Your task to perform on an android device: Go to internet settings Image 0: 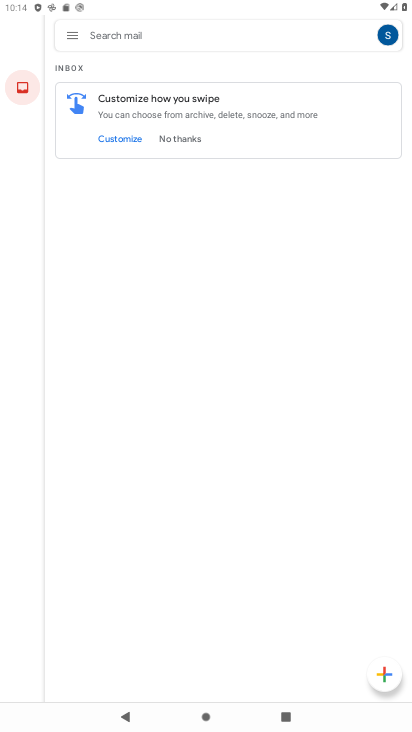
Step 0: press home button
Your task to perform on an android device: Go to internet settings Image 1: 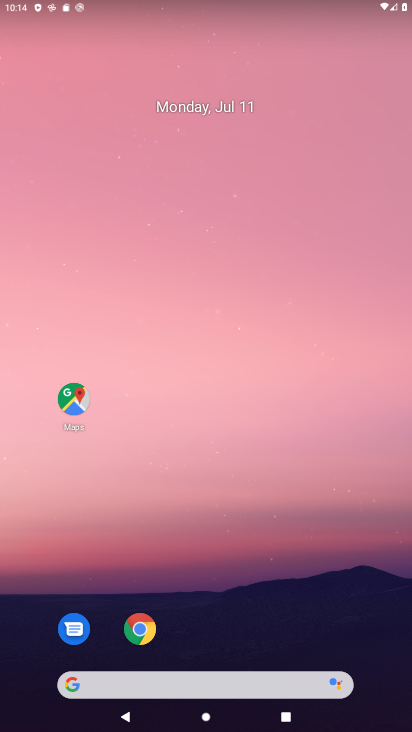
Step 1: drag from (267, 607) to (165, 1)
Your task to perform on an android device: Go to internet settings Image 2: 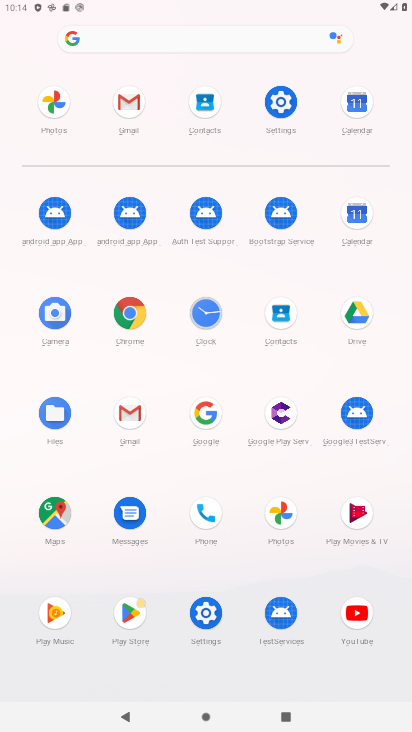
Step 2: click (277, 106)
Your task to perform on an android device: Go to internet settings Image 3: 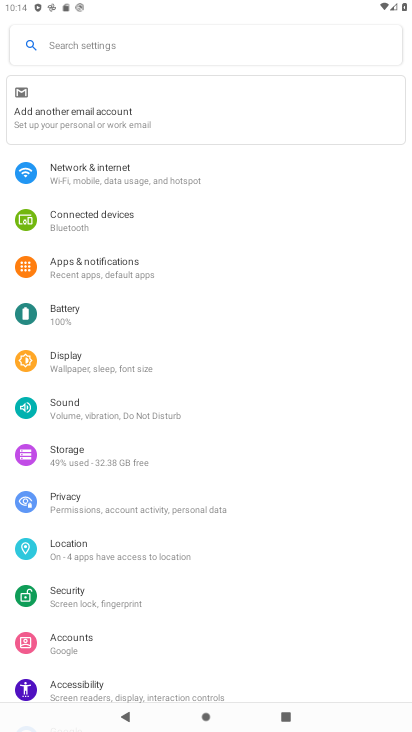
Step 3: click (178, 165)
Your task to perform on an android device: Go to internet settings Image 4: 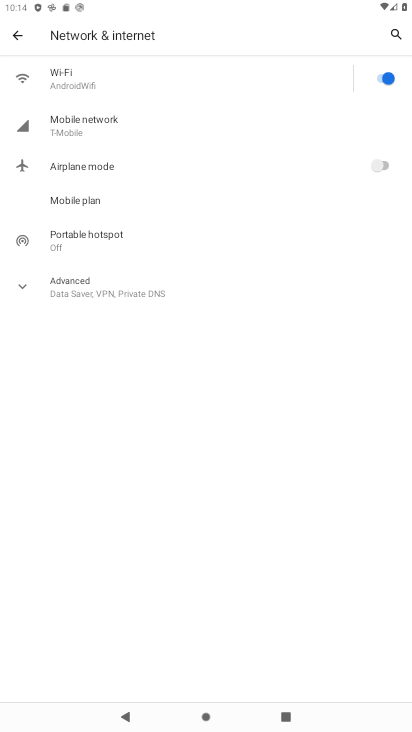
Step 4: click (159, 128)
Your task to perform on an android device: Go to internet settings Image 5: 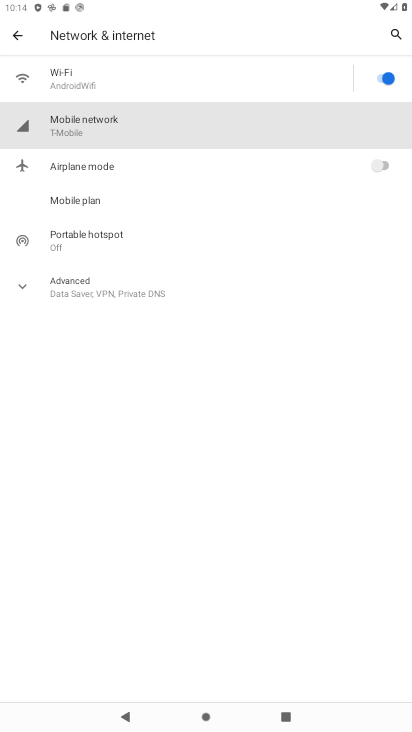
Step 5: task complete